Your task to perform on an android device: turn on javascript in the chrome app Image 0: 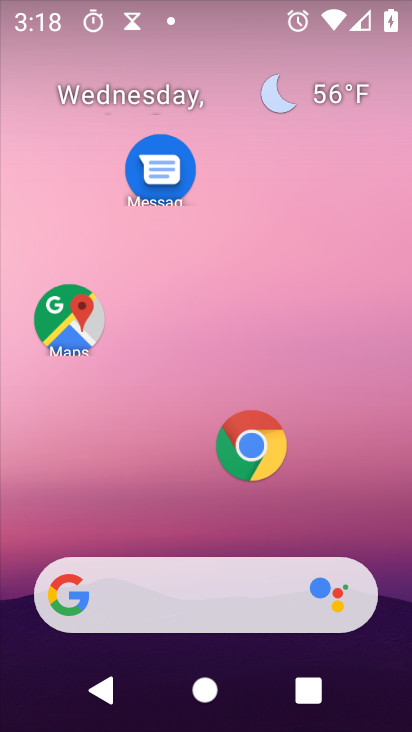
Step 0: click (246, 447)
Your task to perform on an android device: turn on javascript in the chrome app Image 1: 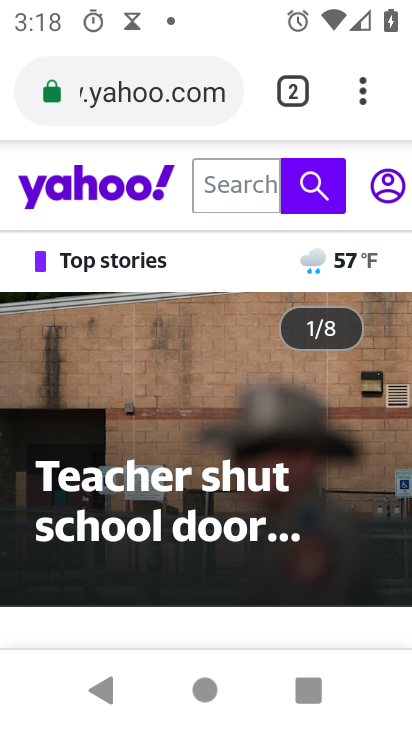
Step 1: click (361, 88)
Your task to perform on an android device: turn on javascript in the chrome app Image 2: 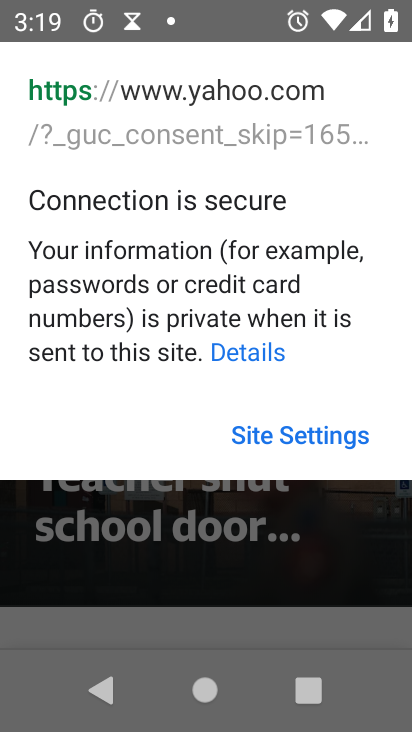
Step 2: press back button
Your task to perform on an android device: turn on javascript in the chrome app Image 3: 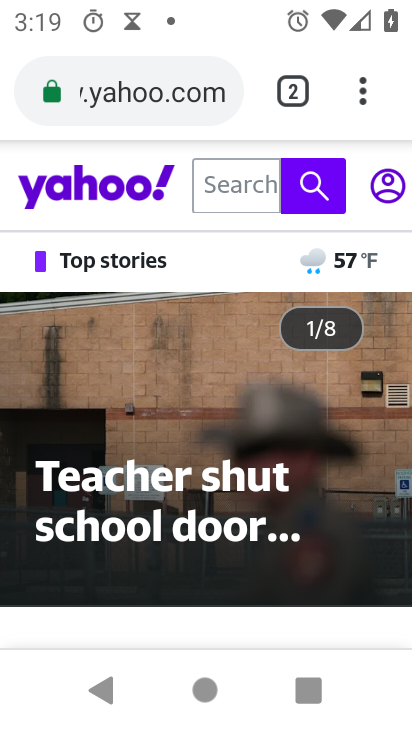
Step 3: click (377, 90)
Your task to perform on an android device: turn on javascript in the chrome app Image 4: 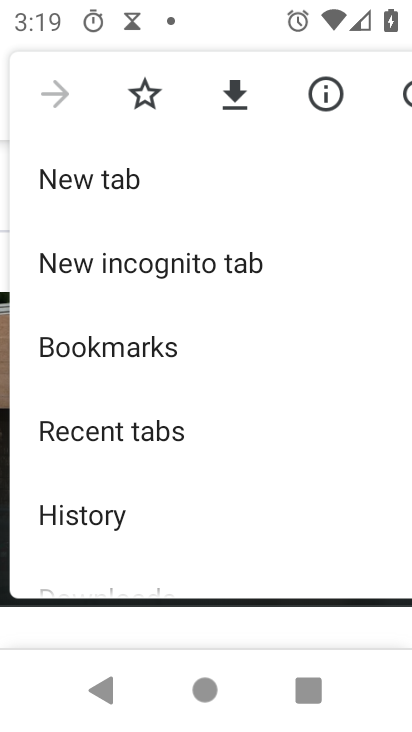
Step 4: drag from (103, 564) to (273, 134)
Your task to perform on an android device: turn on javascript in the chrome app Image 5: 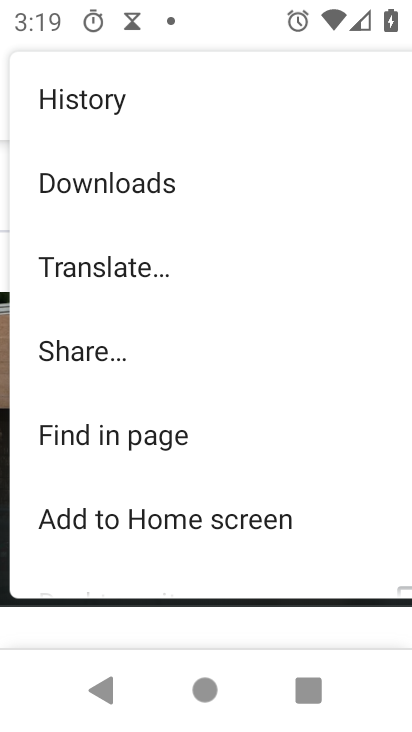
Step 5: drag from (155, 515) to (334, 186)
Your task to perform on an android device: turn on javascript in the chrome app Image 6: 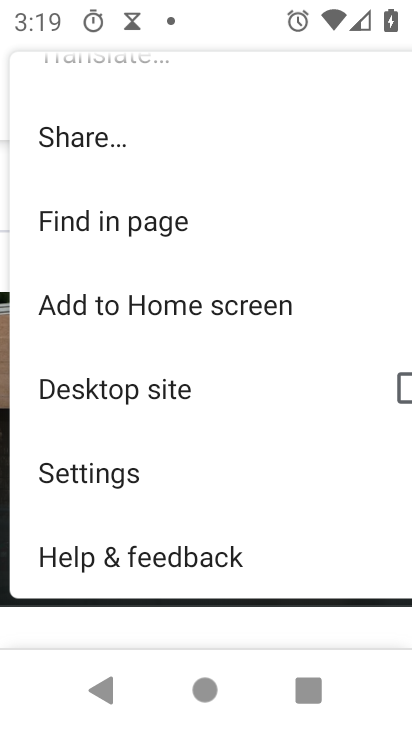
Step 6: click (73, 469)
Your task to perform on an android device: turn on javascript in the chrome app Image 7: 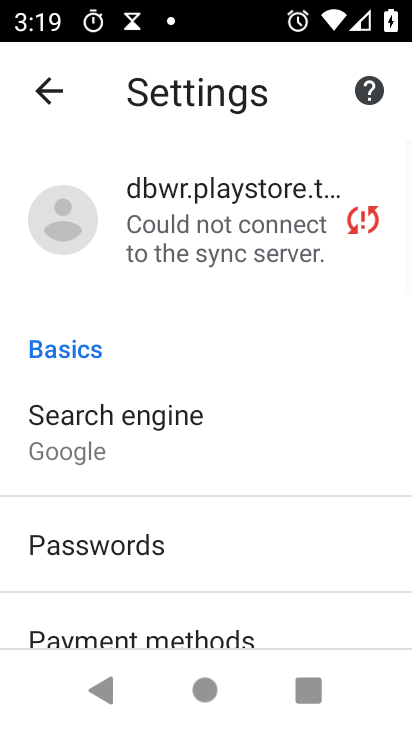
Step 7: drag from (21, 599) to (330, 177)
Your task to perform on an android device: turn on javascript in the chrome app Image 8: 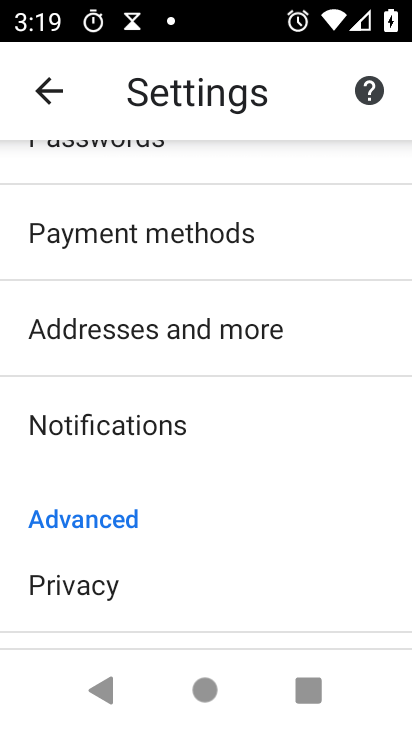
Step 8: drag from (12, 602) to (237, 216)
Your task to perform on an android device: turn on javascript in the chrome app Image 9: 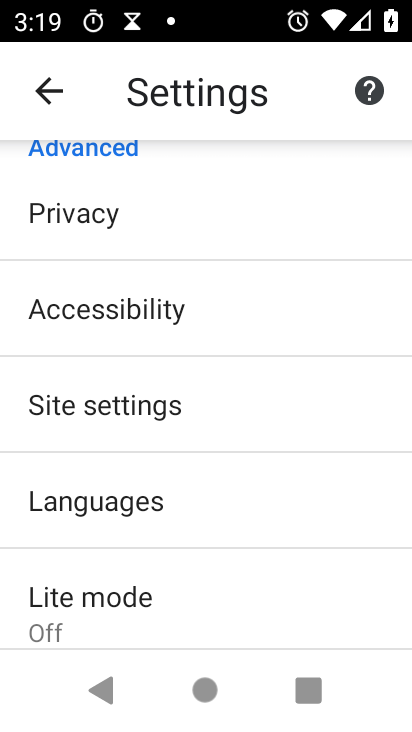
Step 9: click (102, 398)
Your task to perform on an android device: turn on javascript in the chrome app Image 10: 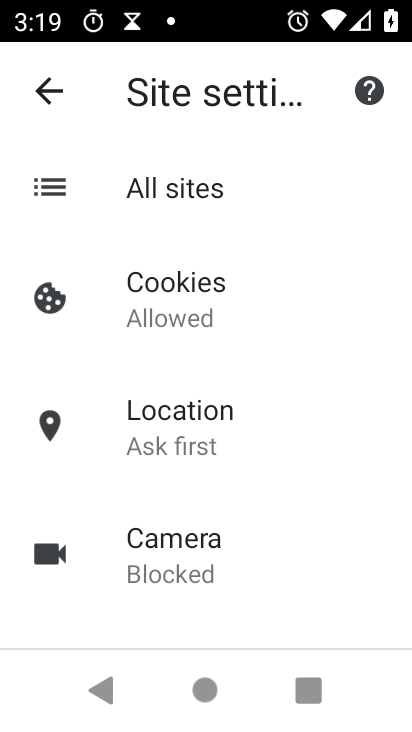
Step 10: click (197, 386)
Your task to perform on an android device: turn on javascript in the chrome app Image 11: 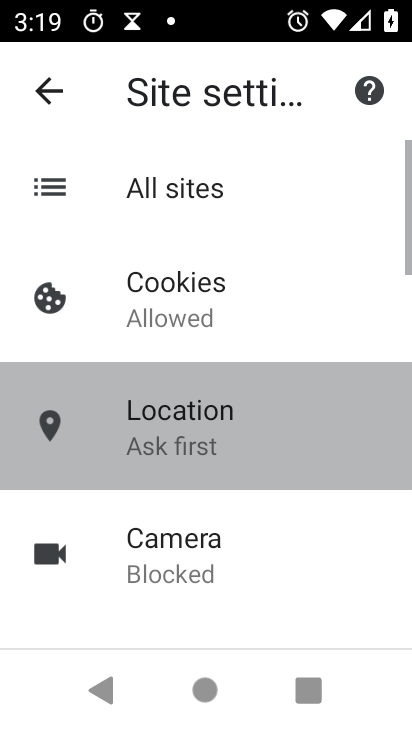
Step 11: drag from (127, 433) to (248, 251)
Your task to perform on an android device: turn on javascript in the chrome app Image 12: 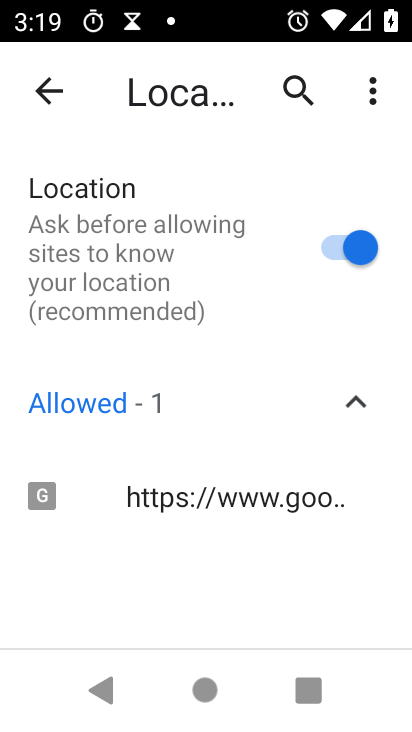
Step 12: press back button
Your task to perform on an android device: turn on javascript in the chrome app Image 13: 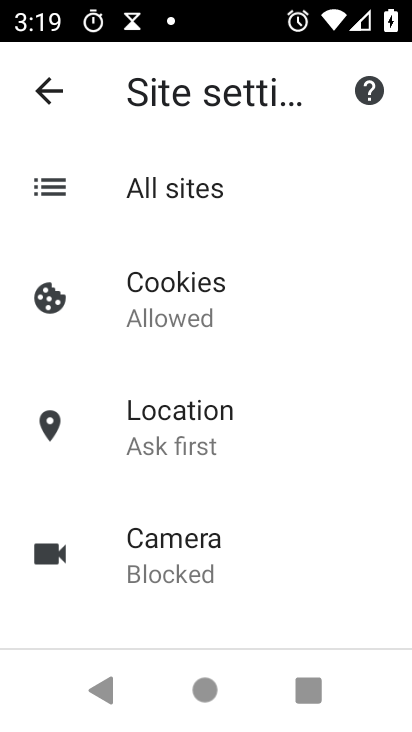
Step 13: drag from (51, 535) to (350, 175)
Your task to perform on an android device: turn on javascript in the chrome app Image 14: 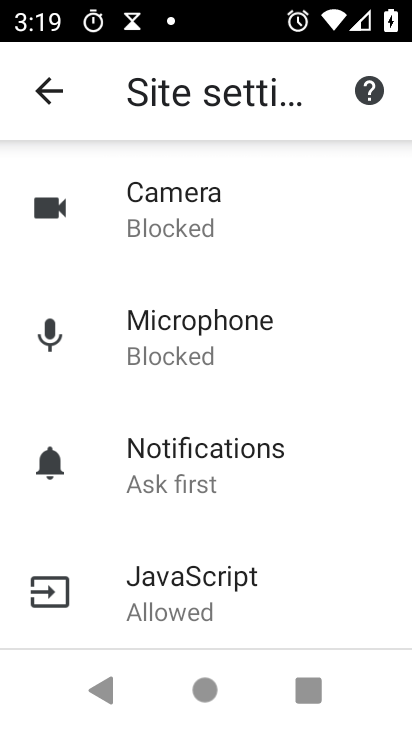
Step 14: click (196, 602)
Your task to perform on an android device: turn on javascript in the chrome app Image 15: 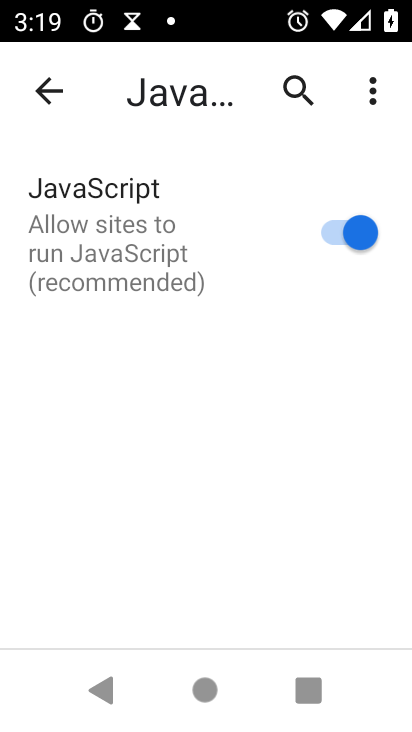
Step 15: task complete